Your task to perform on an android device: change the upload size in google photos Image 0: 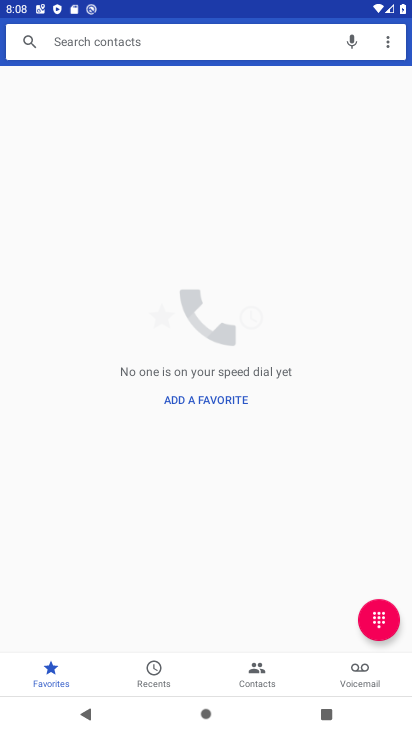
Step 0: drag from (263, 8) to (246, 521)
Your task to perform on an android device: change the upload size in google photos Image 1: 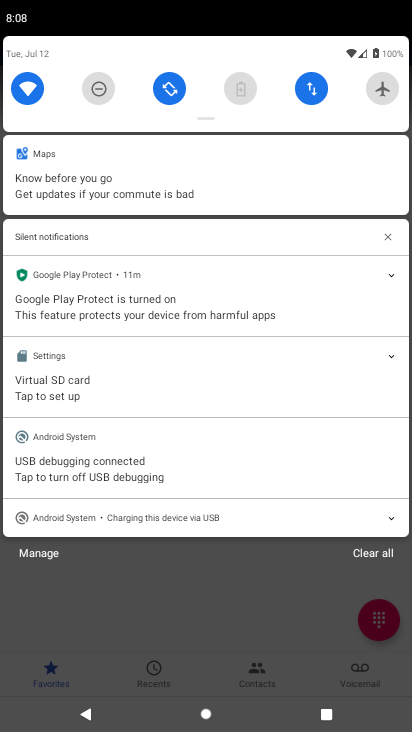
Step 1: press home button
Your task to perform on an android device: change the upload size in google photos Image 2: 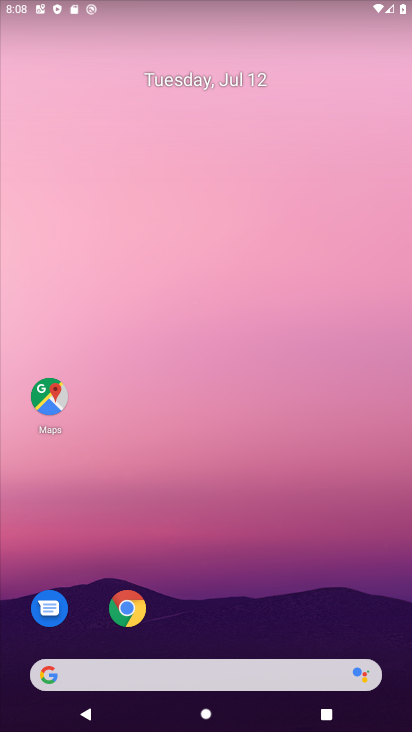
Step 2: drag from (196, 607) to (283, 70)
Your task to perform on an android device: change the upload size in google photos Image 3: 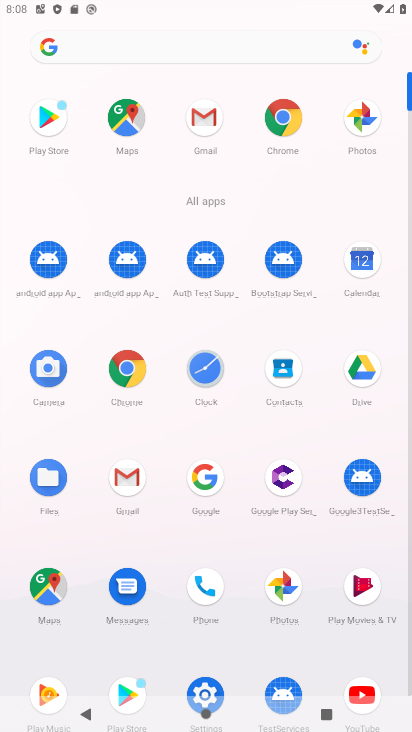
Step 3: click (353, 112)
Your task to perform on an android device: change the upload size in google photos Image 4: 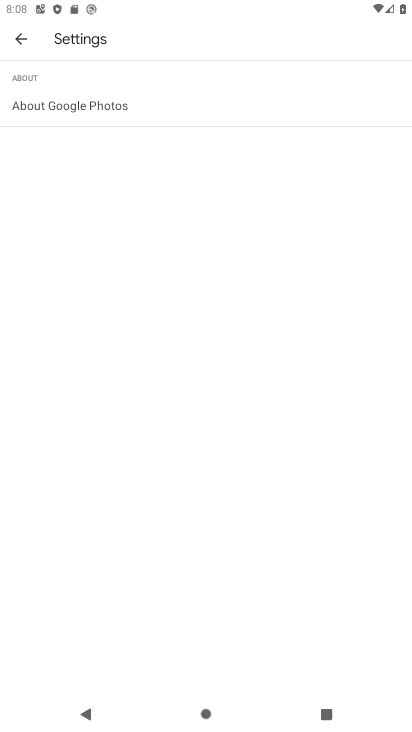
Step 4: click (19, 38)
Your task to perform on an android device: change the upload size in google photos Image 5: 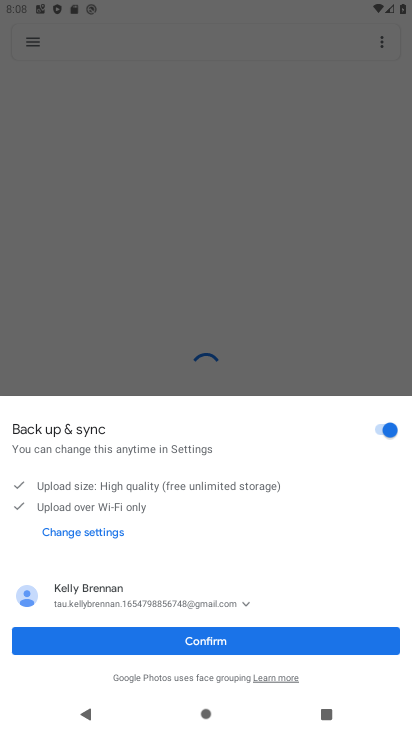
Step 5: click (90, 535)
Your task to perform on an android device: change the upload size in google photos Image 6: 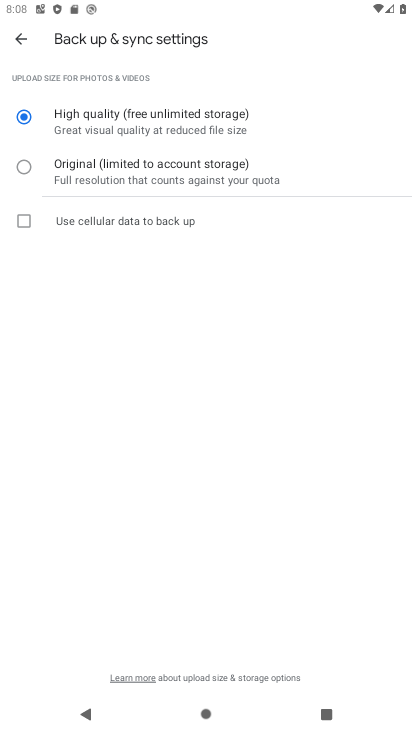
Step 6: click (120, 170)
Your task to perform on an android device: change the upload size in google photos Image 7: 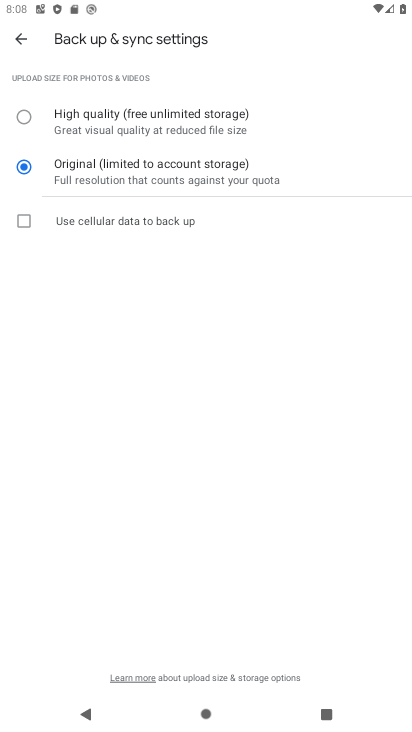
Step 7: task complete